Your task to perform on an android device: open the mobile data screen to see how much data has been used Image 0: 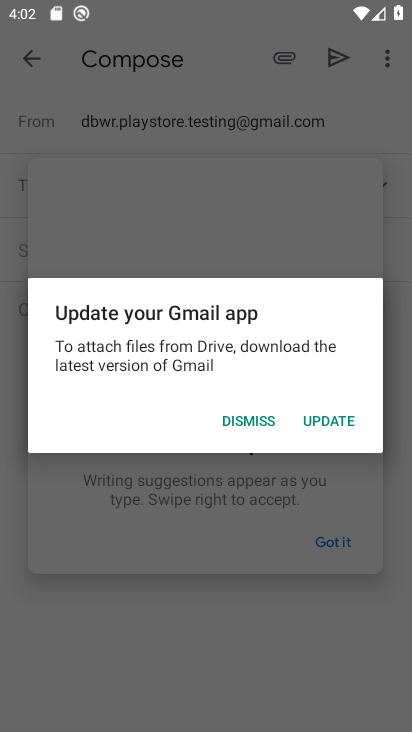
Step 0: press home button
Your task to perform on an android device: open the mobile data screen to see how much data has been used Image 1: 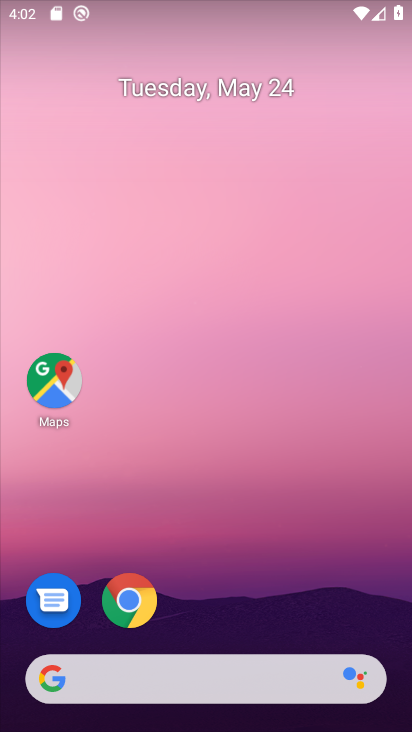
Step 1: drag from (286, 677) to (295, 4)
Your task to perform on an android device: open the mobile data screen to see how much data has been used Image 2: 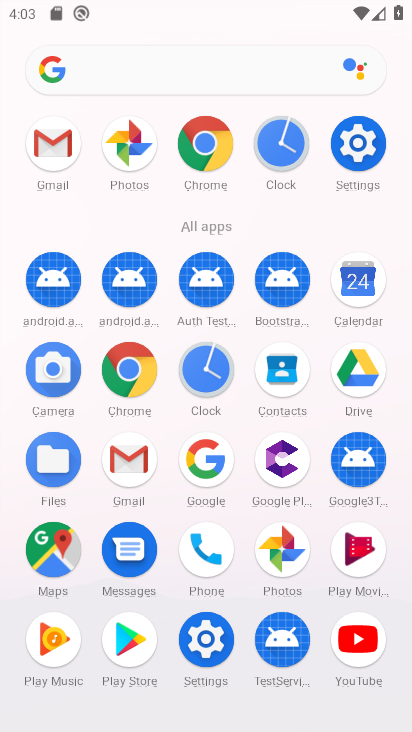
Step 2: click (362, 143)
Your task to perform on an android device: open the mobile data screen to see how much data has been used Image 3: 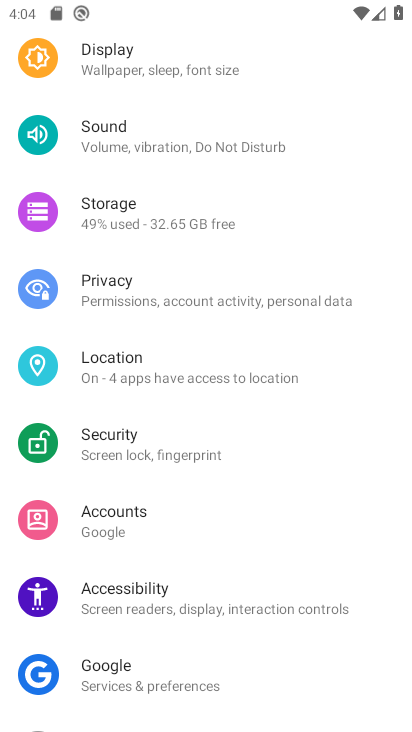
Step 3: drag from (189, 112) to (145, 718)
Your task to perform on an android device: open the mobile data screen to see how much data has been used Image 4: 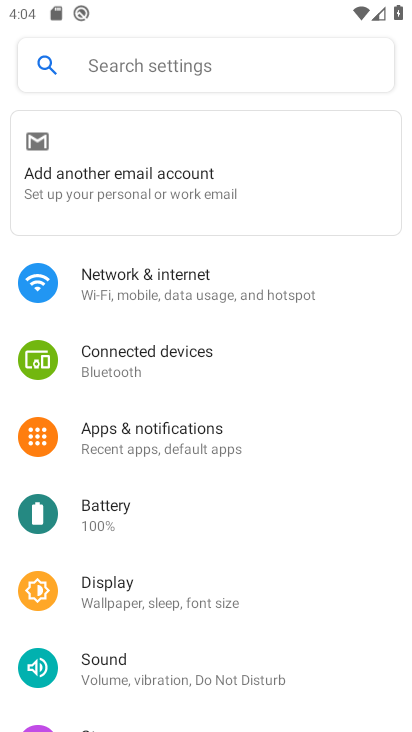
Step 4: click (151, 291)
Your task to perform on an android device: open the mobile data screen to see how much data has been used Image 5: 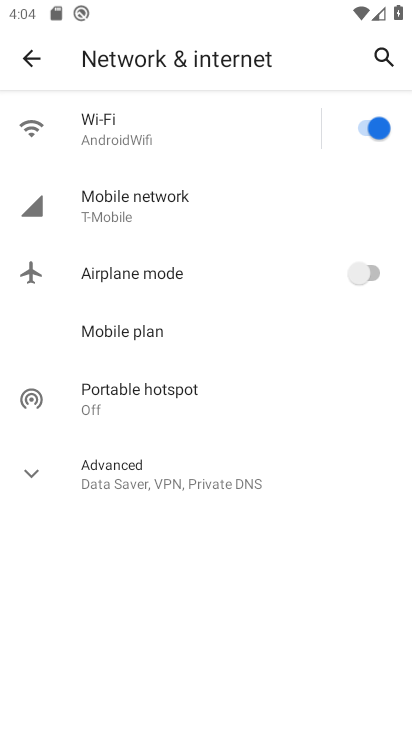
Step 5: task complete